Your task to perform on an android device: Go to wifi settings Image 0: 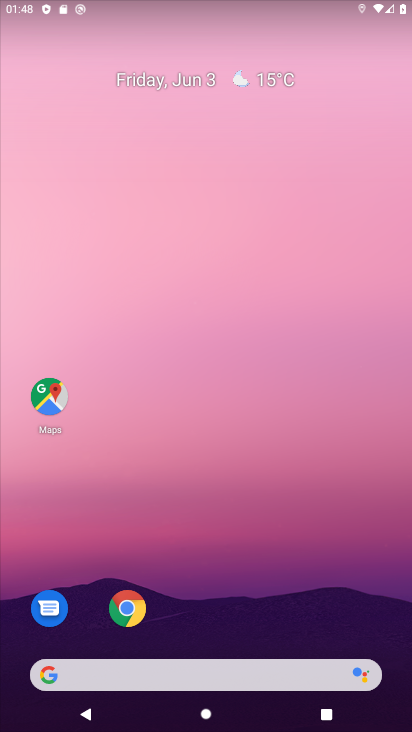
Step 0: drag from (235, 458) to (93, 104)
Your task to perform on an android device: Go to wifi settings Image 1: 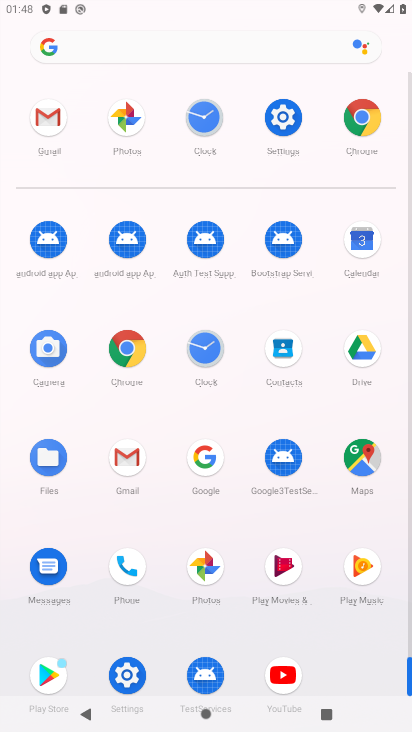
Step 1: click (278, 119)
Your task to perform on an android device: Go to wifi settings Image 2: 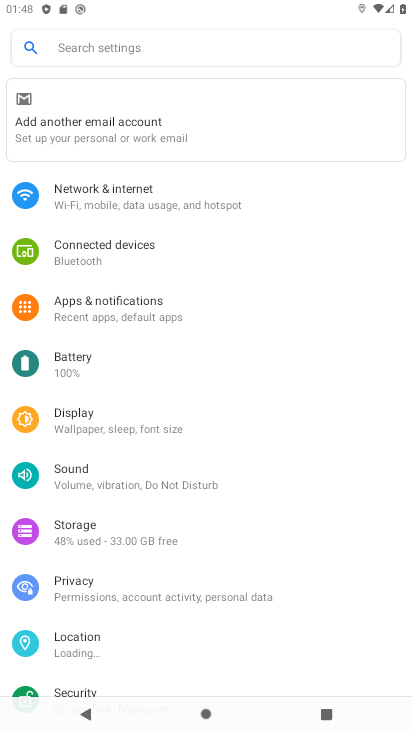
Step 2: click (140, 207)
Your task to perform on an android device: Go to wifi settings Image 3: 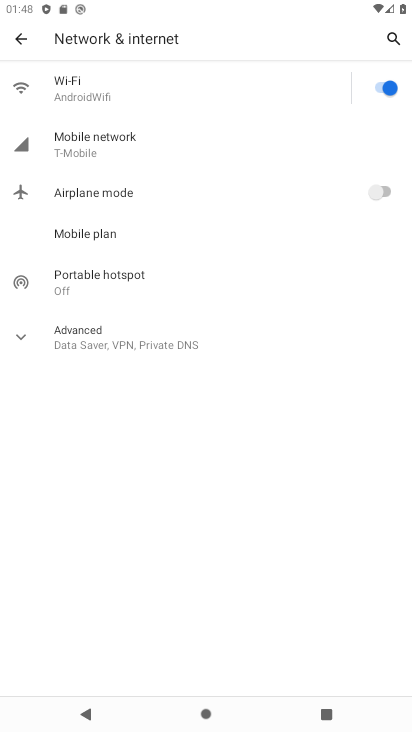
Step 3: click (105, 86)
Your task to perform on an android device: Go to wifi settings Image 4: 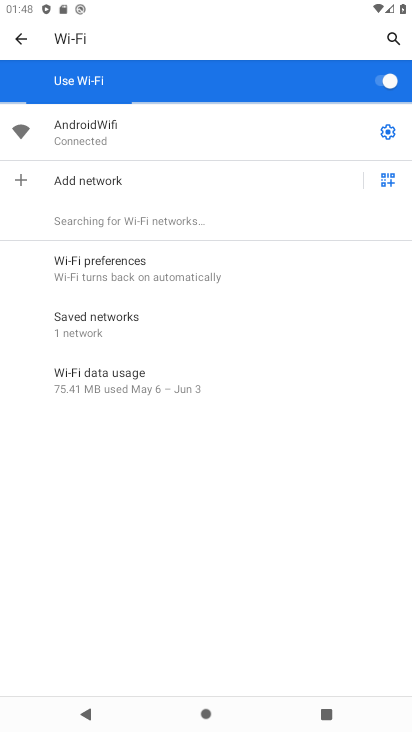
Step 4: click (381, 129)
Your task to perform on an android device: Go to wifi settings Image 5: 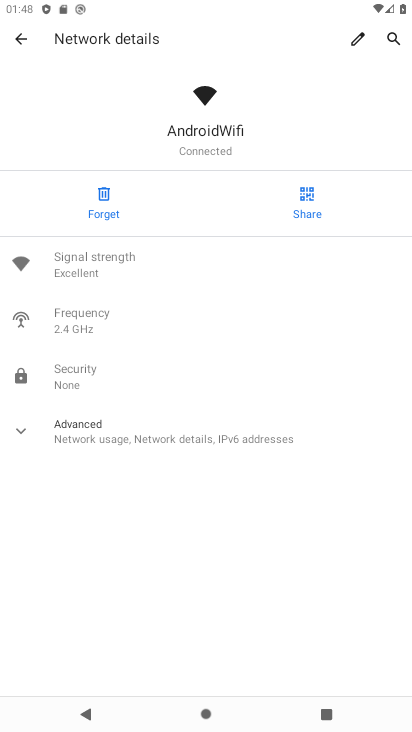
Step 5: task complete